Your task to perform on an android device: Open the stopwatch Image 0: 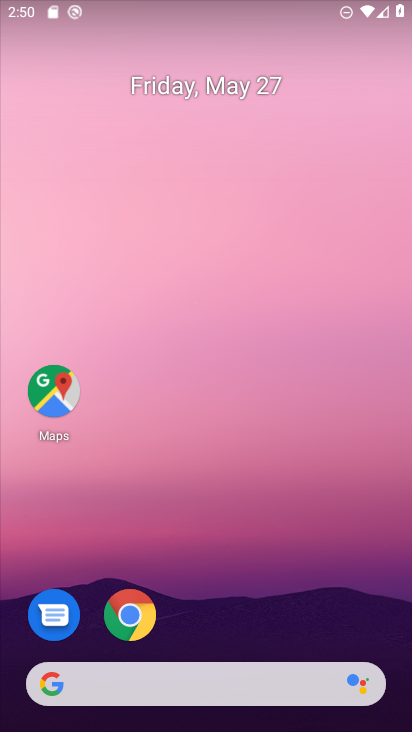
Step 0: drag from (291, 571) to (188, 64)
Your task to perform on an android device: Open the stopwatch Image 1: 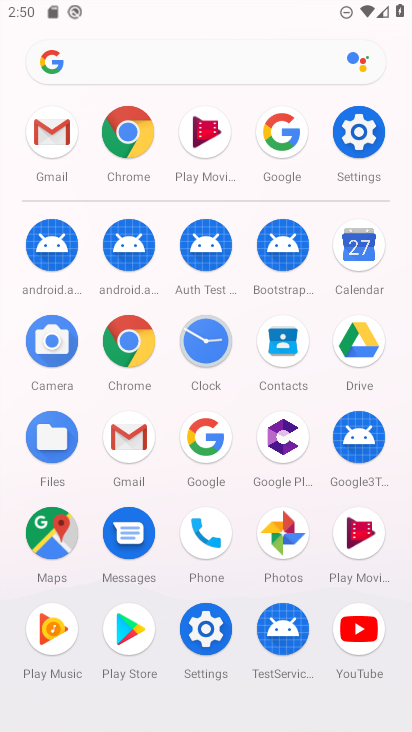
Step 1: click (188, 334)
Your task to perform on an android device: Open the stopwatch Image 2: 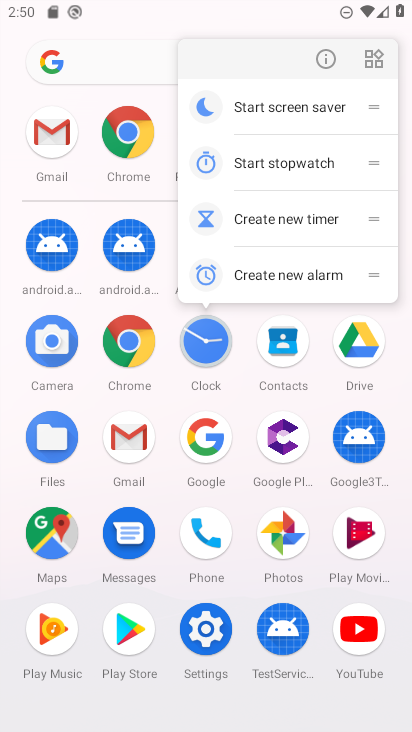
Step 2: click (208, 349)
Your task to perform on an android device: Open the stopwatch Image 3: 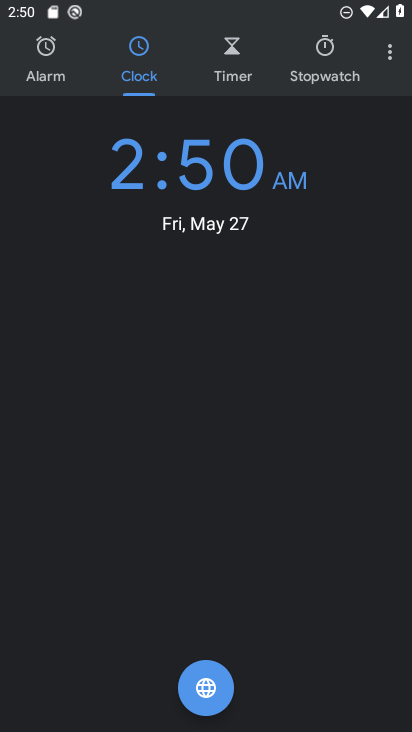
Step 3: click (314, 73)
Your task to perform on an android device: Open the stopwatch Image 4: 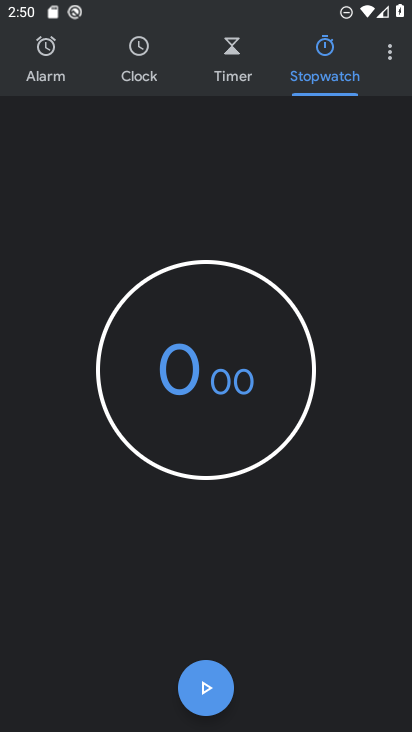
Step 4: task complete